Your task to perform on an android device: set the stopwatch Image 0: 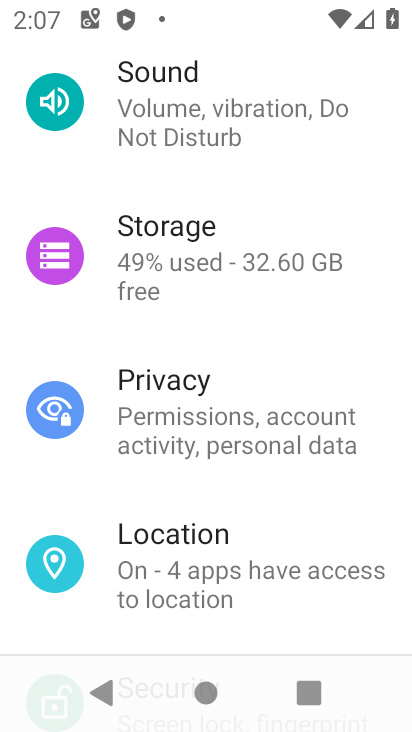
Step 0: press home button
Your task to perform on an android device: set the stopwatch Image 1: 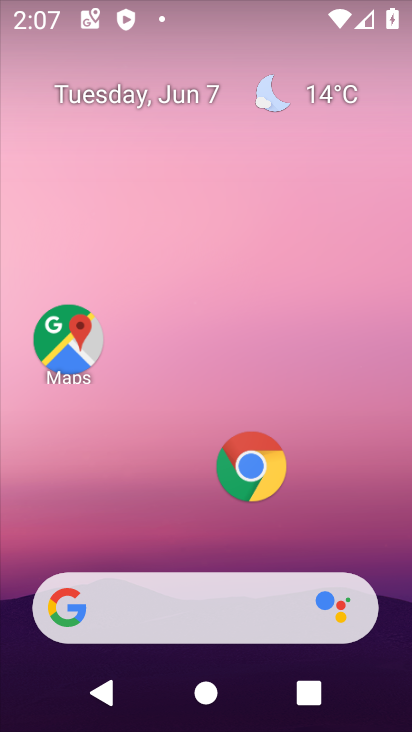
Step 1: drag from (149, 569) to (145, 129)
Your task to perform on an android device: set the stopwatch Image 2: 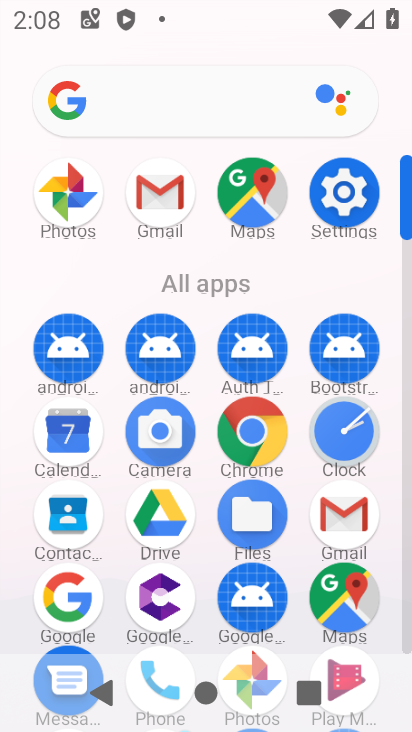
Step 2: click (347, 433)
Your task to perform on an android device: set the stopwatch Image 3: 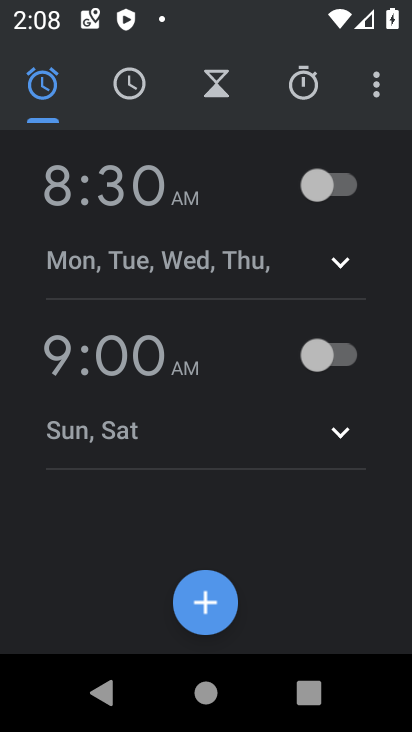
Step 3: click (301, 84)
Your task to perform on an android device: set the stopwatch Image 4: 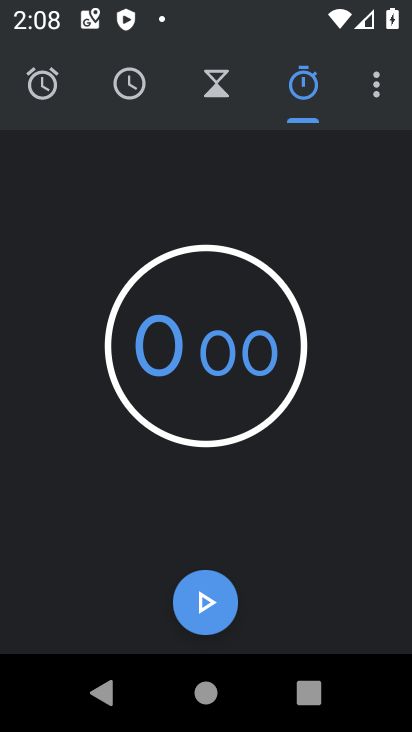
Step 4: click (203, 606)
Your task to perform on an android device: set the stopwatch Image 5: 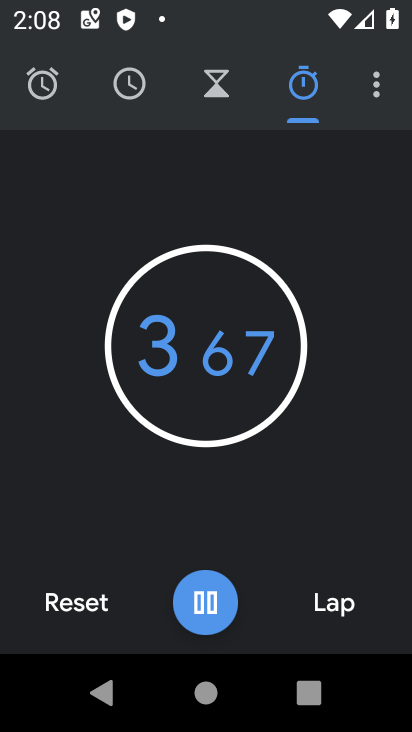
Step 5: click (203, 609)
Your task to perform on an android device: set the stopwatch Image 6: 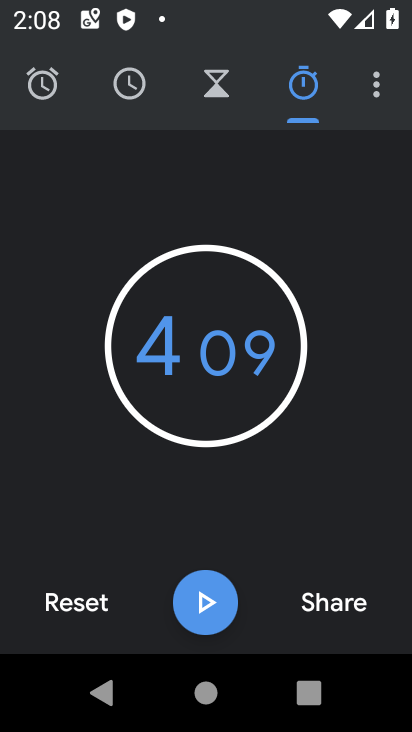
Step 6: task complete